Your task to perform on an android device: Open battery settings Image 0: 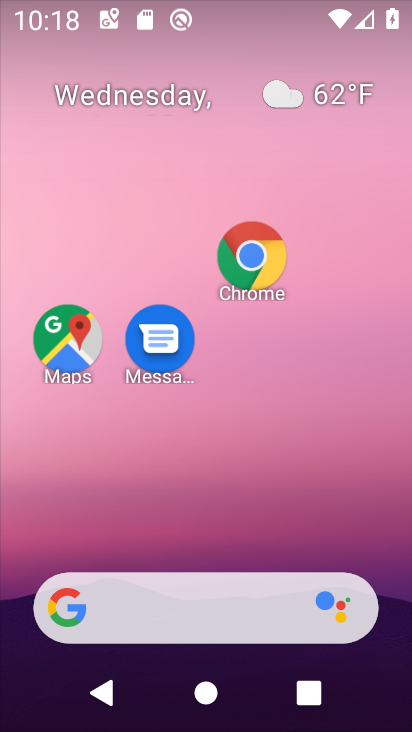
Step 0: drag from (212, 499) to (243, 85)
Your task to perform on an android device: Open battery settings Image 1: 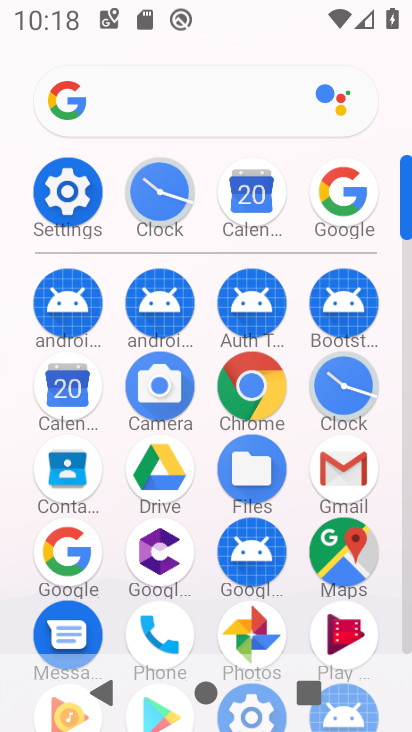
Step 1: click (64, 196)
Your task to perform on an android device: Open battery settings Image 2: 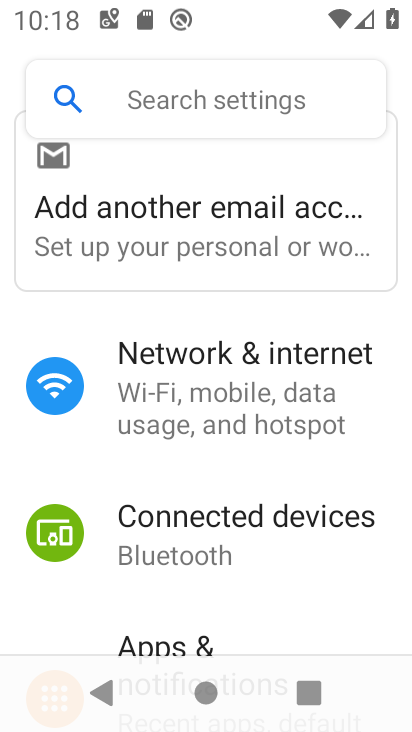
Step 2: drag from (199, 581) to (200, 115)
Your task to perform on an android device: Open battery settings Image 3: 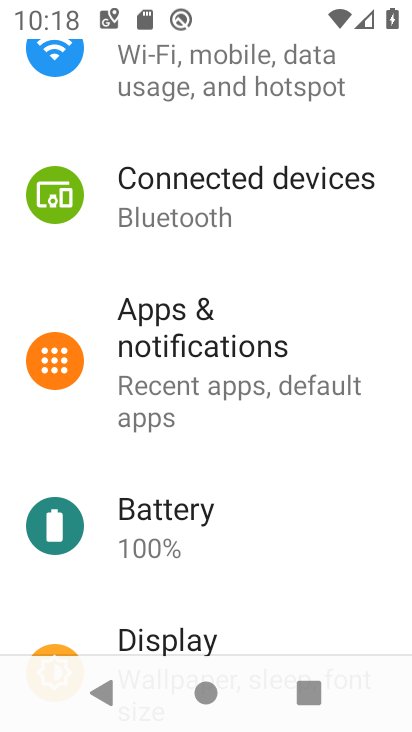
Step 3: click (152, 523)
Your task to perform on an android device: Open battery settings Image 4: 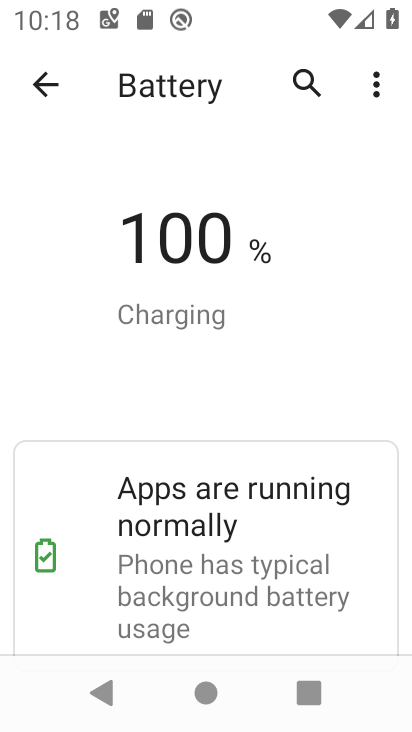
Step 4: task complete